Your task to perform on an android device: Search for flights from Mexico city to Seattle Image 0: 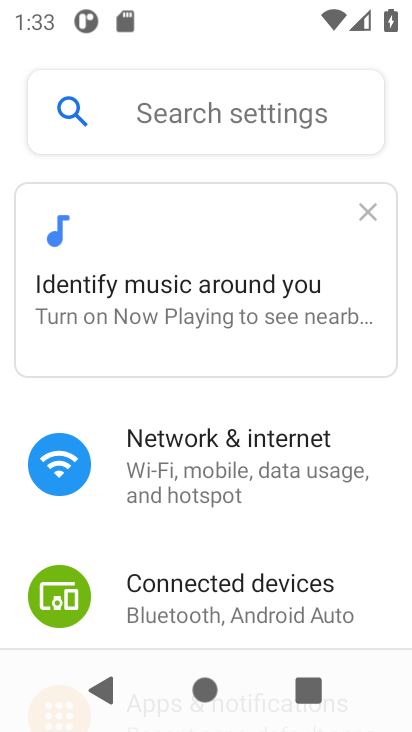
Step 0: press home button
Your task to perform on an android device: Search for flights from Mexico city to Seattle Image 1: 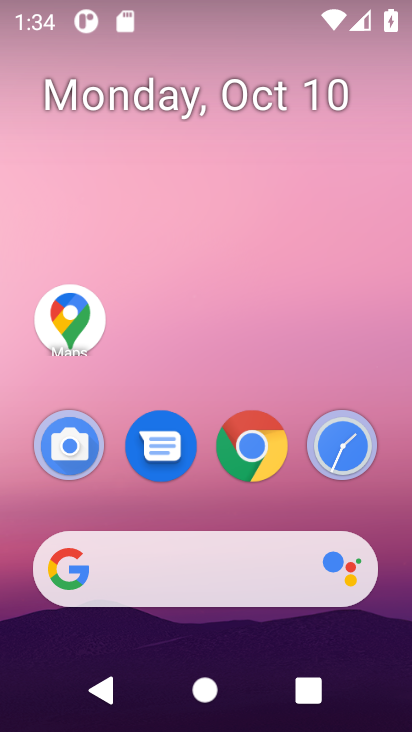
Step 1: click (181, 577)
Your task to perform on an android device: Search for flights from Mexico city to Seattle Image 2: 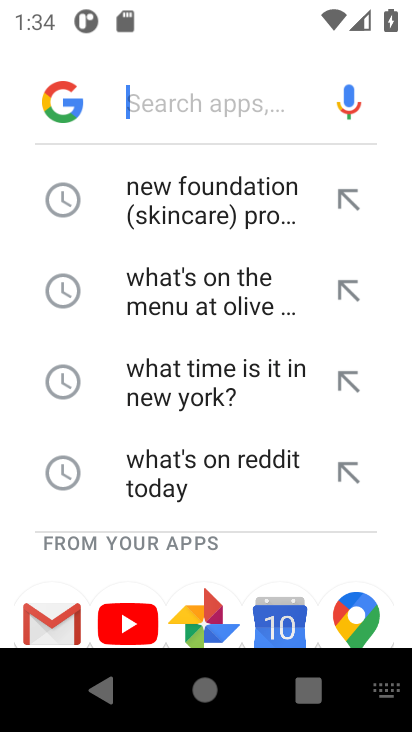
Step 2: type "flights from Mexico city to Seattle"
Your task to perform on an android device: Search for flights from Mexico city to Seattle Image 3: 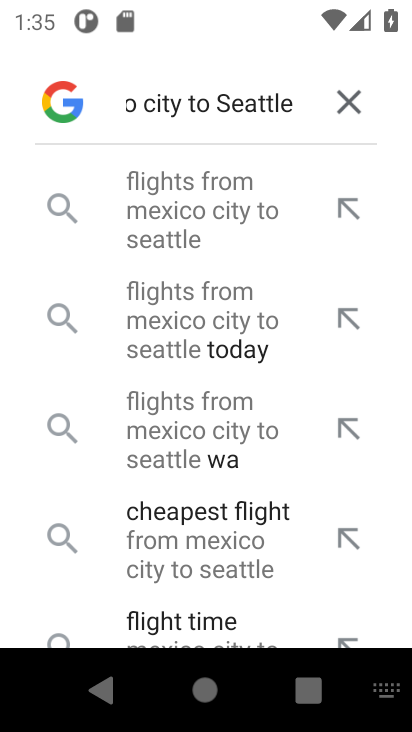
Step 3: click (220, 220)
Your task to perform on an android device: Search for flights from Mexico city to Seattle Image 4: 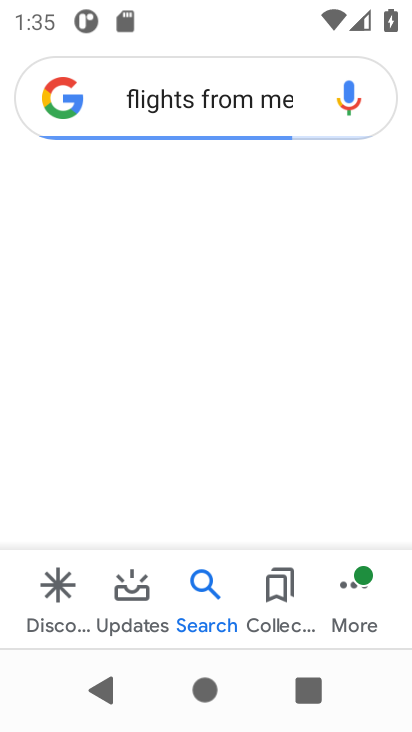
Step 4: task complete